Your task to perform on an android device: check out phone information Image 0: 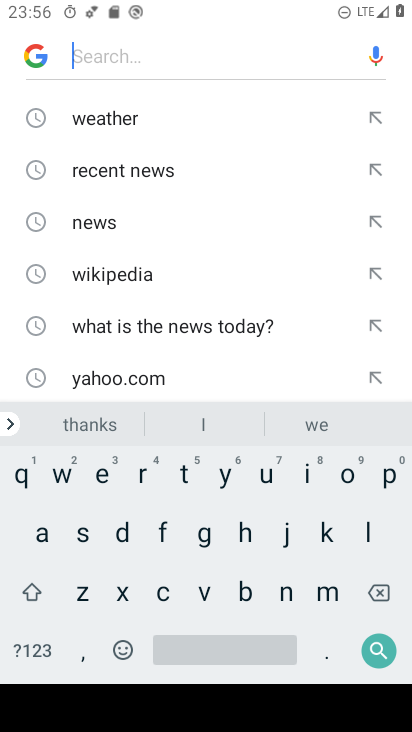
Step 0: press home button
Your task to perform on an android device: check out phone information Image 1: 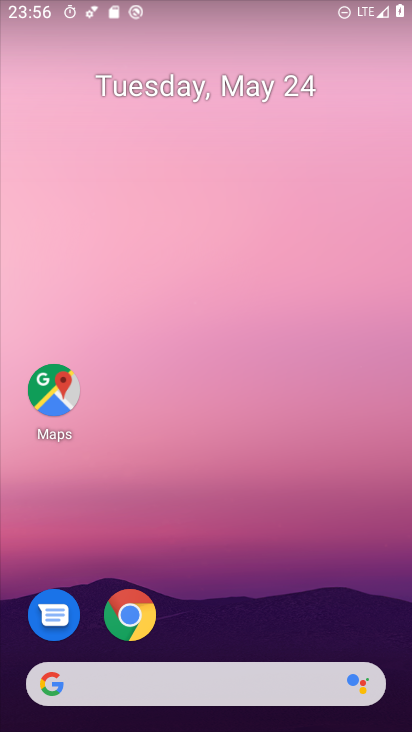
Step 1: drag from (219, 693) to (411, 26)
Your task to perform on an android device: check out phone information Image 2: 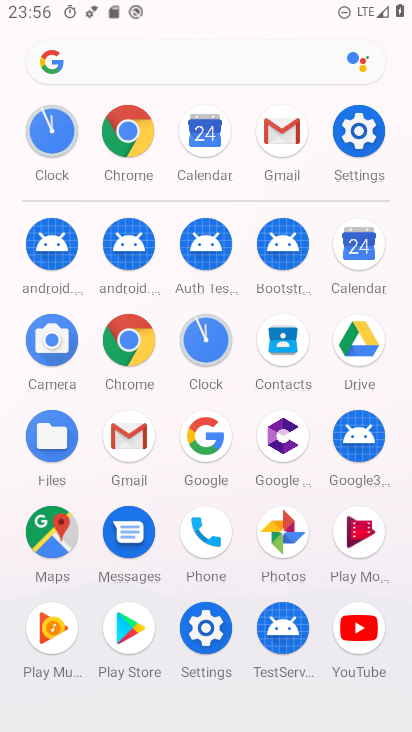
Step 2: click (364, 115)
Your task to perform on an android device: check out phone information Image 3: 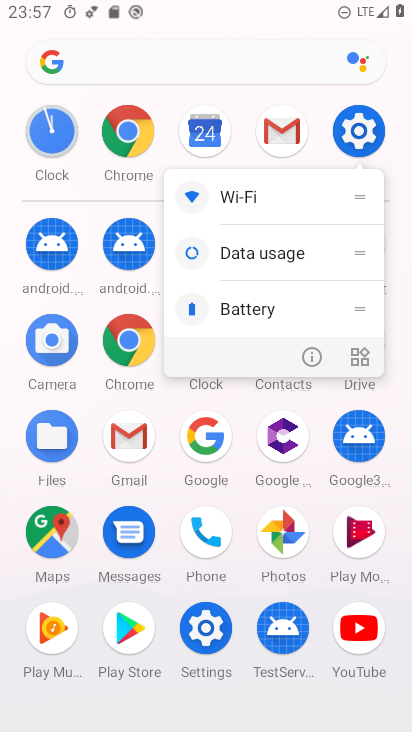
Step 3: click (368, 146)
Your task to perform on an android device: check out phone information Image 4: 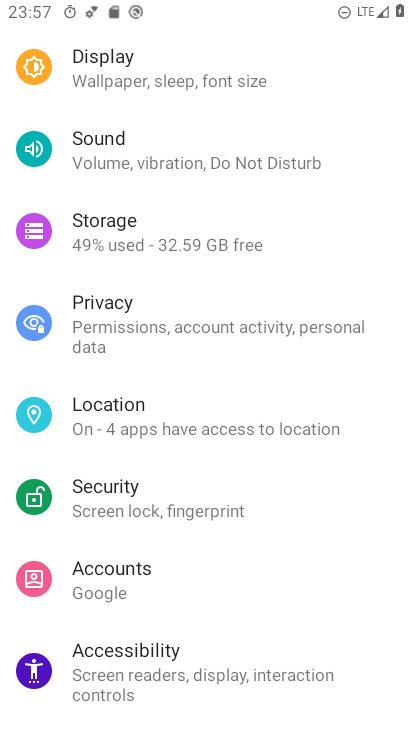
Step 4: drag from (190, 254) to (193, 390)
Your task to perform on an android device: check out phone information Image 5: 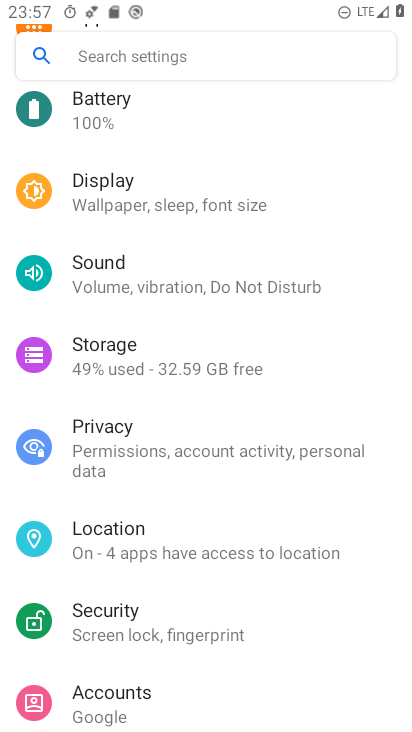
Step 5: click (192, 60)
Your task to perform on an android device: check out phone information Image 6: 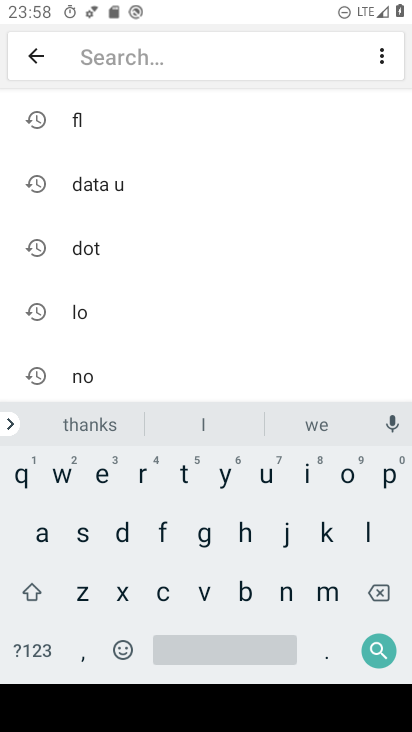
Step 6: click (32, 529)
Your task to perform on an android device: check out phone information Image 7: 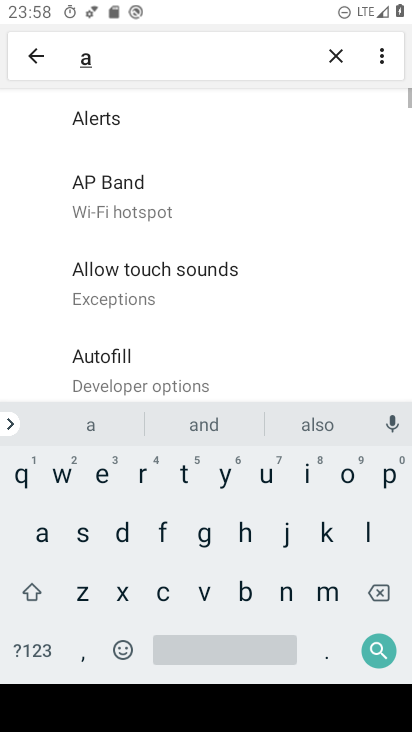
Step 7: click (246, 593)
Your task to perform on an android device: check out phone information Image 8: 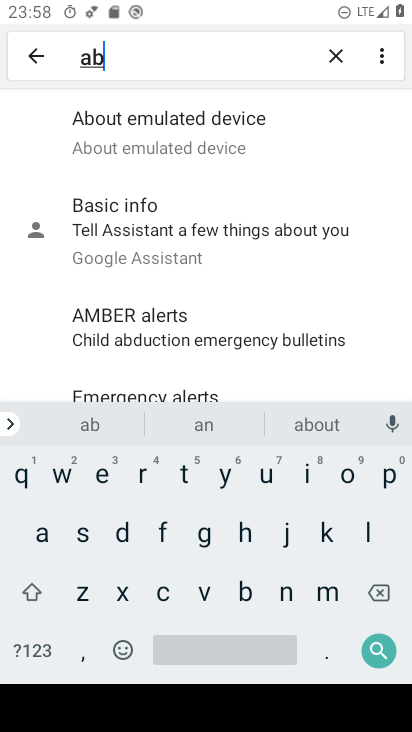
Step 8: click (231, 130)
Your task to perform on an android device: check out phone information Image 9: 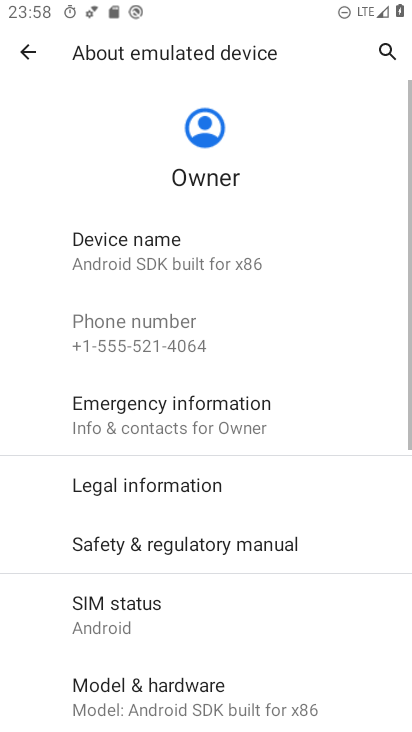
Step 9: task complete